Your task to perform on an android device: Go to settings Image 0: 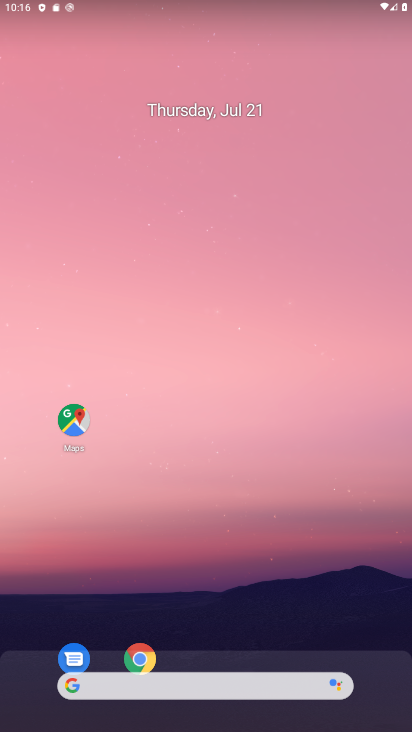
Step 0: drag from (209, 681) to (207, 140)
Your task to perform on an android device: Go to settings Image 1: 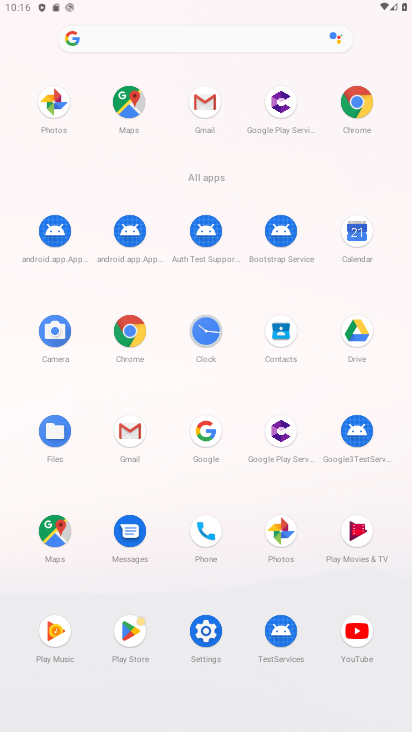
Step 1: click (202, 619)
Your task to perform on an android device: Go to settings Image 2: 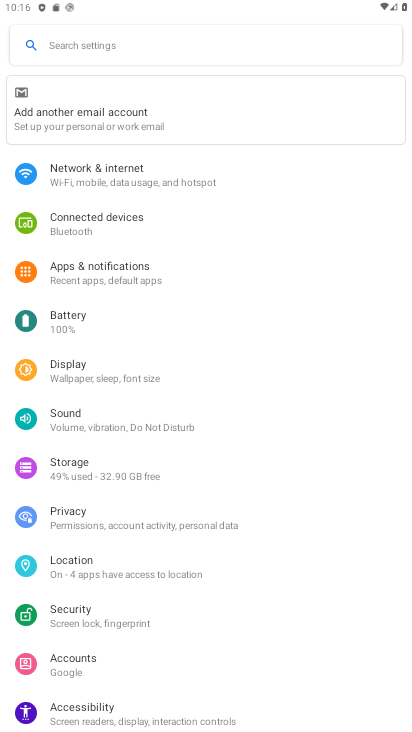
Step 2: task complete